Your task to perform on an android device: Search for sushi restaurants on Maps Image 0: 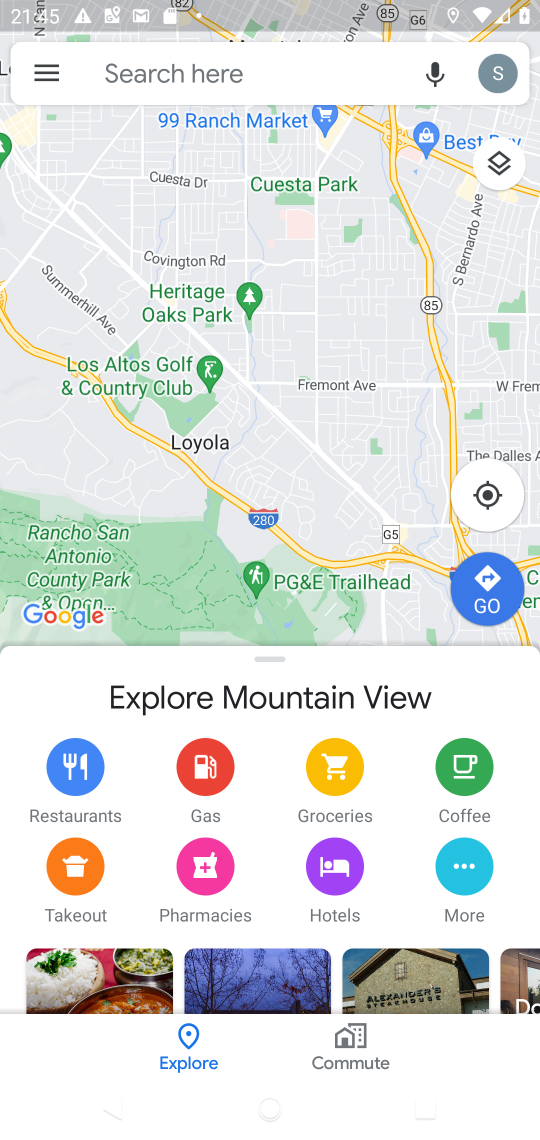
Step 0: press home button
Your task to perform on an android device: Search for sushi restaurants on Maps Image 1: 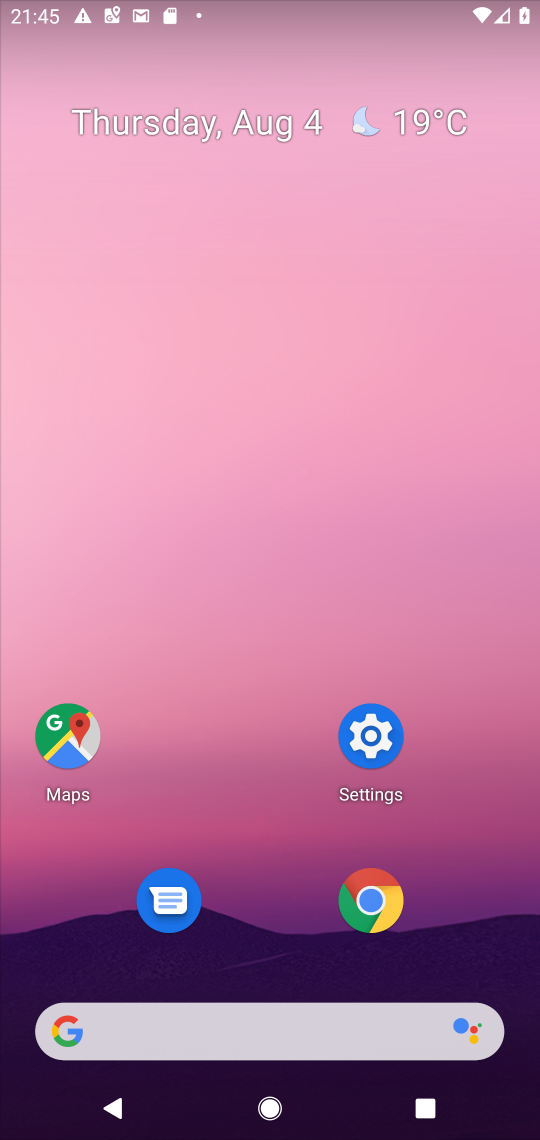
Step 1: click (70, 729)
Your task to perform on an android device: Search for sushi restaurants on Maps Image 2: 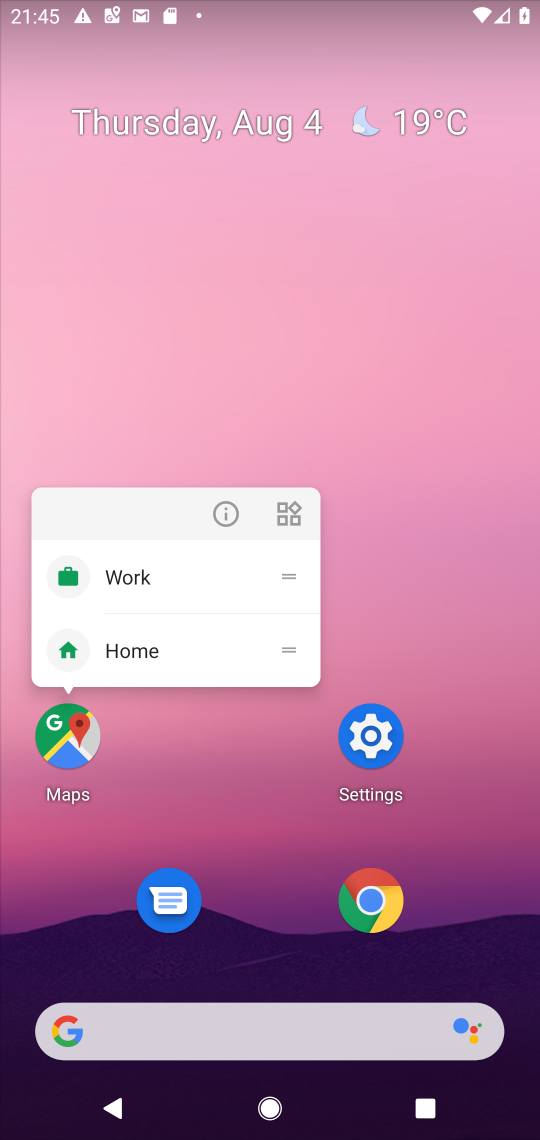
Step 2: click (70, 731)
Your task to perform on an android device: Search for sushi restaurants on Maps Image 3: 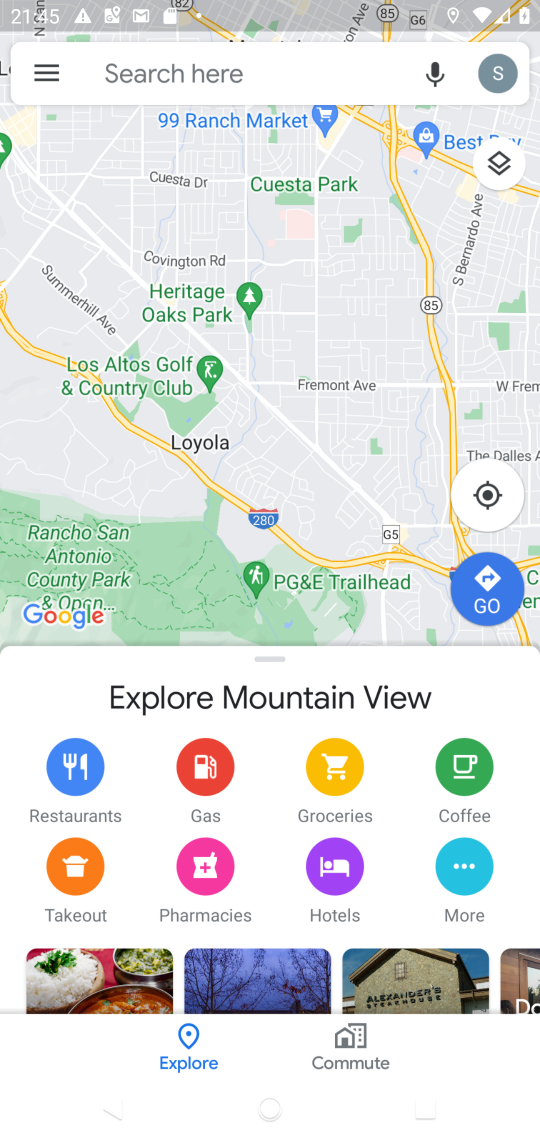
Step 3: click (222, 73)
Your task to perform on an android device: Search for sushi restaurants on Maps Image 4: 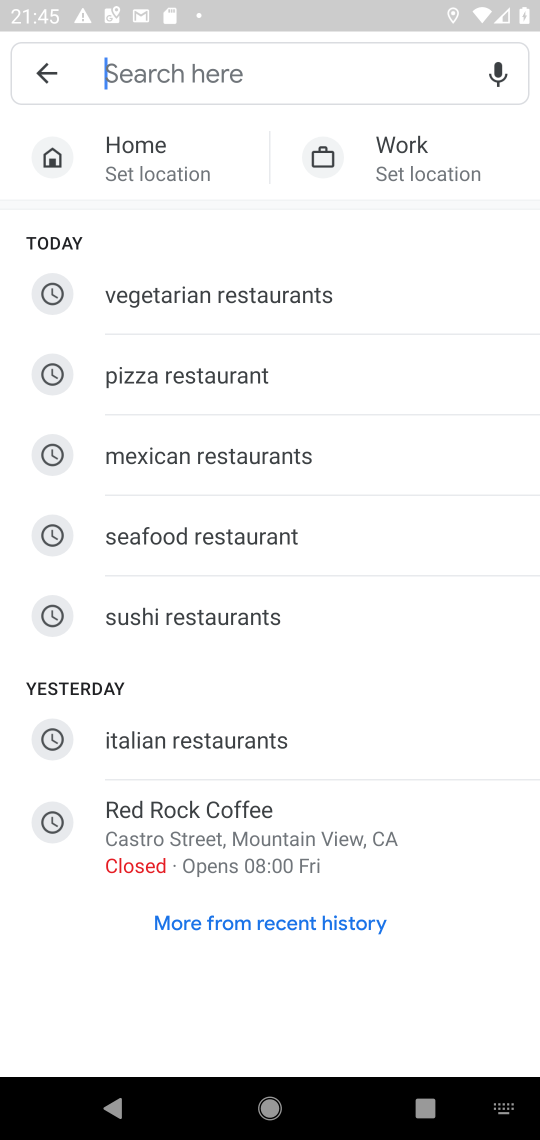
Step 4: click (203, 628)
Your task to perform on an android device: Search for sushi restaurants on Maps Image 5: 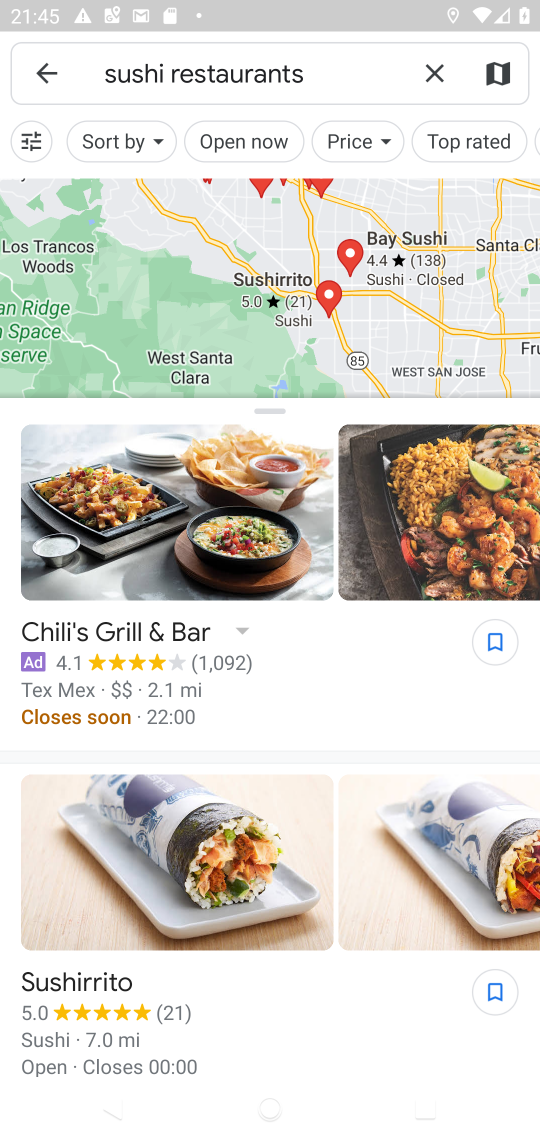
Step 5: task complete